Your task to perform on an android device: Open Chrome and go to settings Image 0: 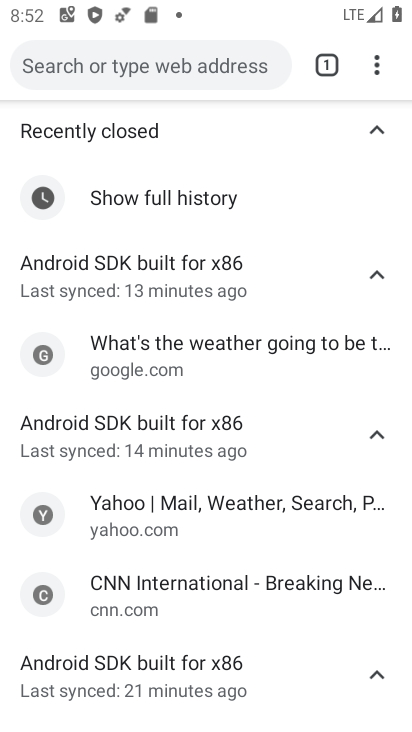
Step 0: click (374, 63)
Your task to perform on an android device: Open Chrome and go to settings Image 1: 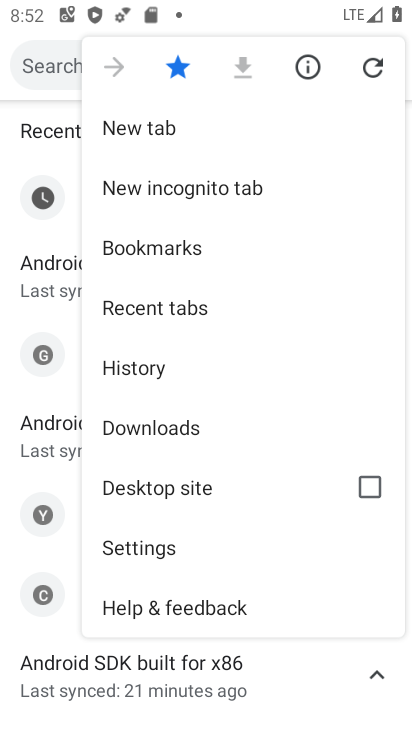
Step 1: click (190, 547)
Your task to perform on an android device: Open Chrome and go to settings Image 2: 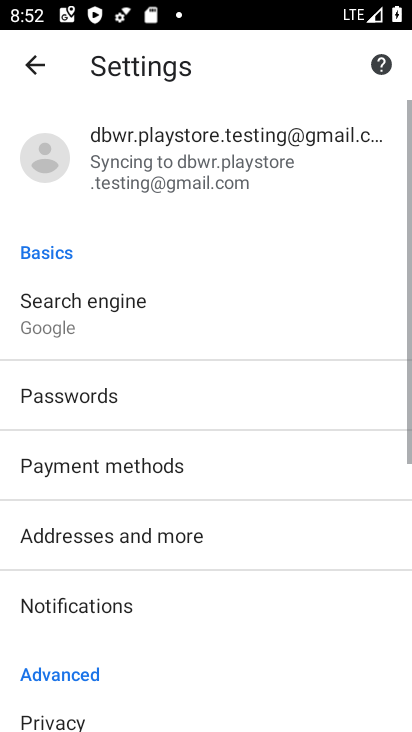
Step 2: task complete